Your task to perform on an android device: toggle data saver in the chrome app Image 0: 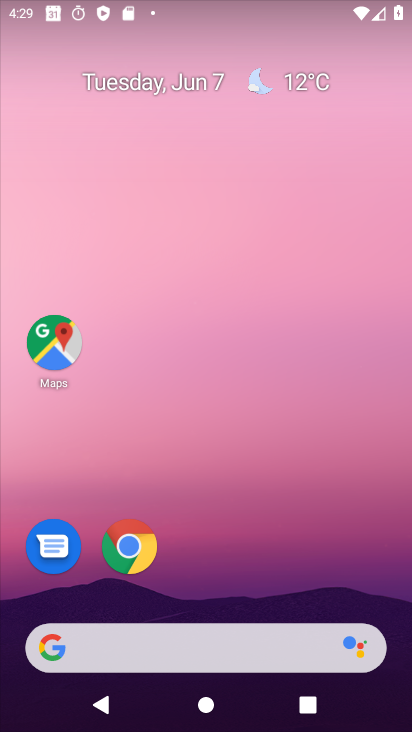
Step 0: click (108, 553)
Your task to perform on an android device: toggle data saver in the chrome app Image 1: 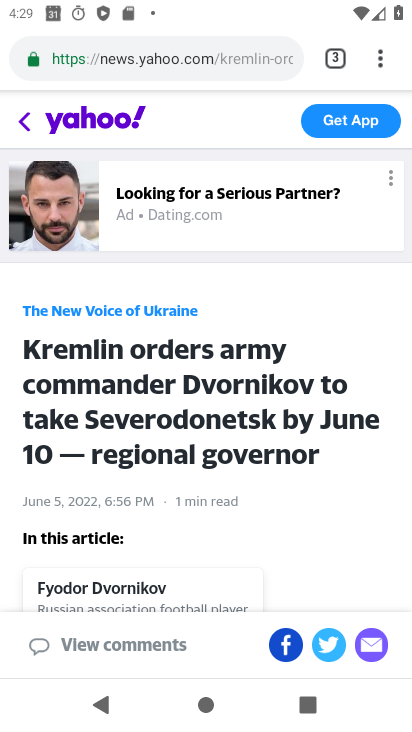
Step 1: click (382, 59)
Your task to perform on an android device: toggle data saver in the chrome app Image 2: 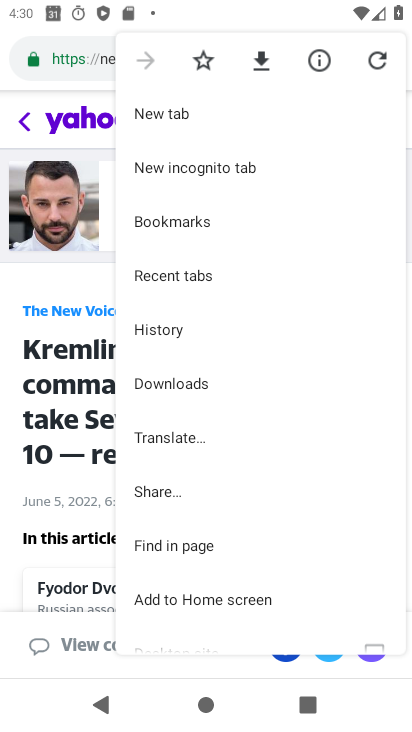
Step 2: drag from (178, 570) to (199, 154)
Your task to perform on an android device: toggle data saver in the chrome app Image 3: 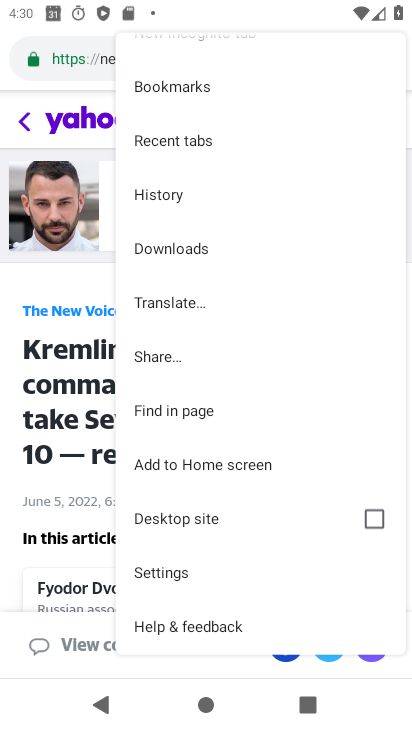
Step 3: click (167, 567)
Your task to perform on an android device: toggle data saver in the chrome app Image 4: 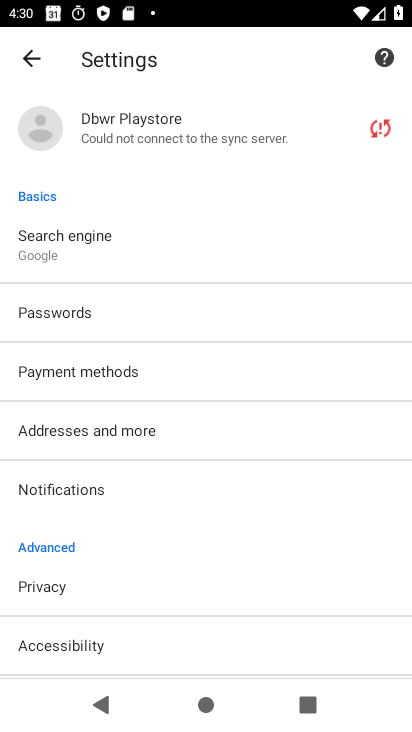
Step 4: drag from (87, 583) to (94, 91)
Your task to perform on an android device: toggle data saver in the chrome app Image 5: 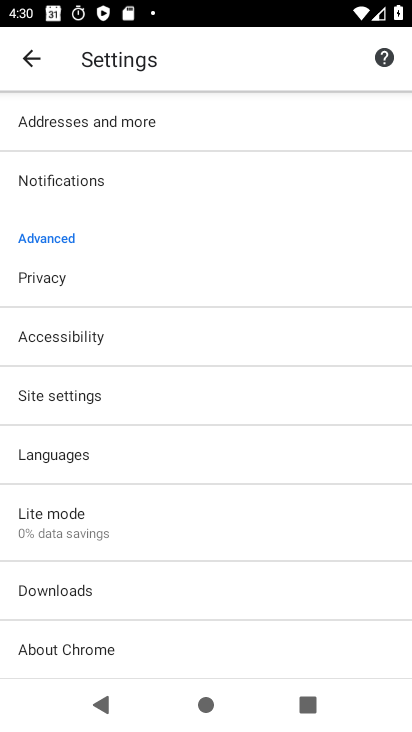
Step 5: click (111, 516)
Your task to perform on an android device: toggle data saver in the chrome app Image 6: 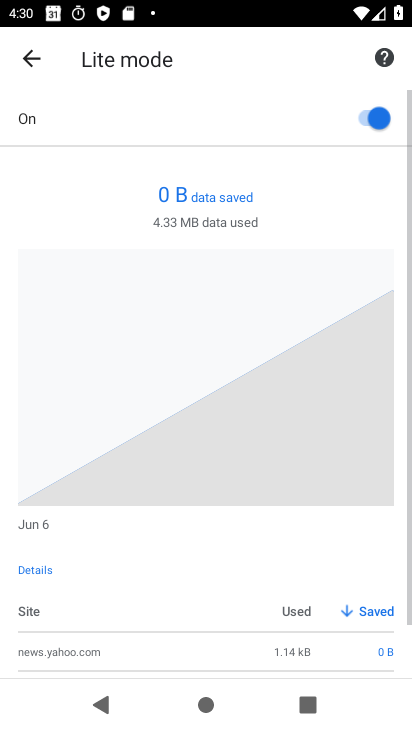
Step 6: click (373, 117)
Your task to perform on an android device: toggle data saver in the chrome app Image 7: 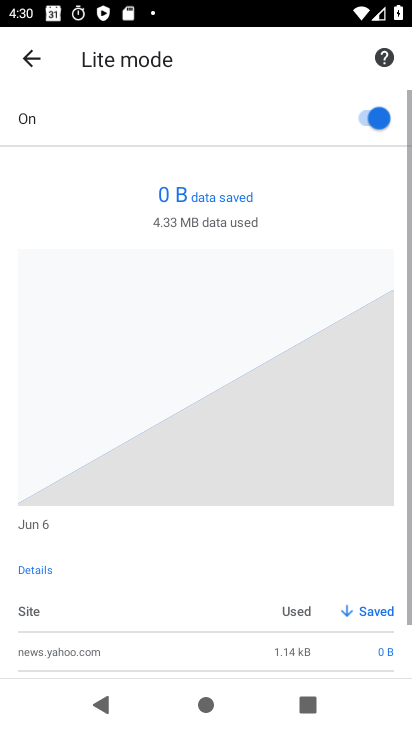
Step 7: click (373, 117)
Your task to perform on an android device: toggle data saver in the chrome app Image 8: 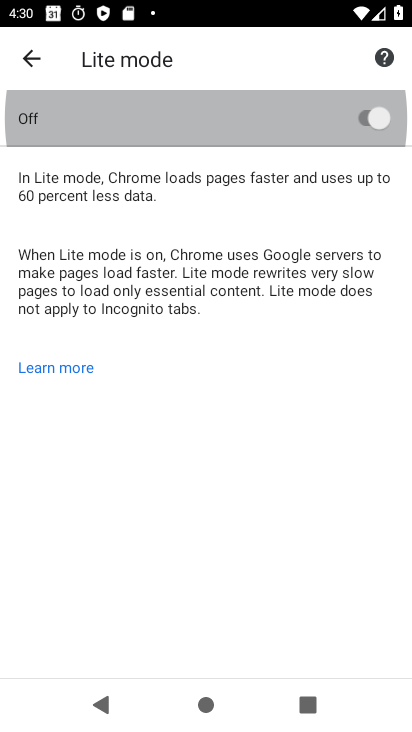
Step 8: click (373, 117)
Your task to perform on an android device: toggle data saver in the chrome app Image 9: 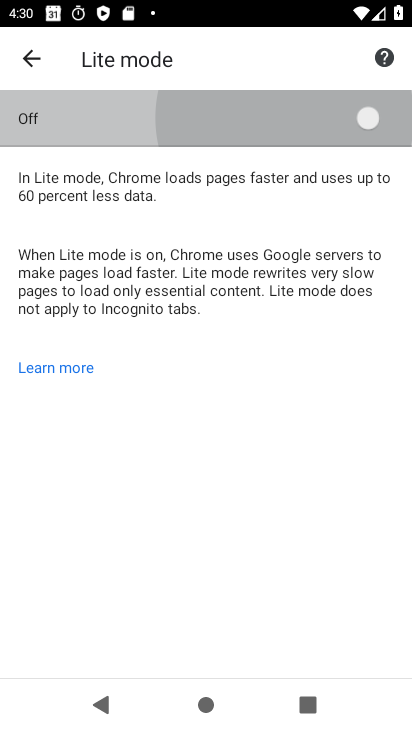
Step 9: click (373, 117)
Your task to perform on an android device: toggle data saver in the chrome app Image 10: 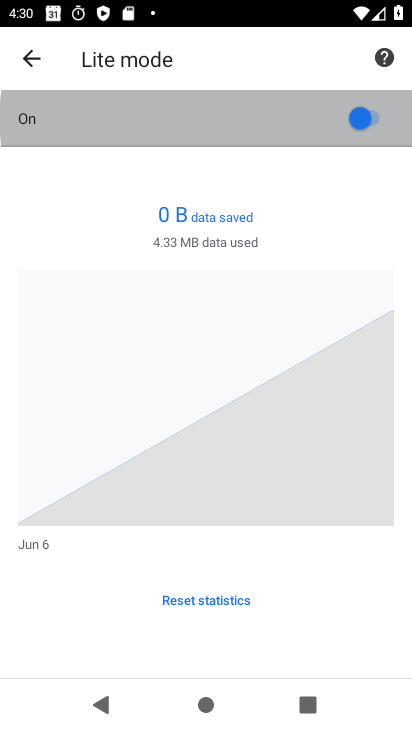
Step 10: click (373, 117)
Your task to perform on an android device: toggle data saver in the chrome app Image 11: 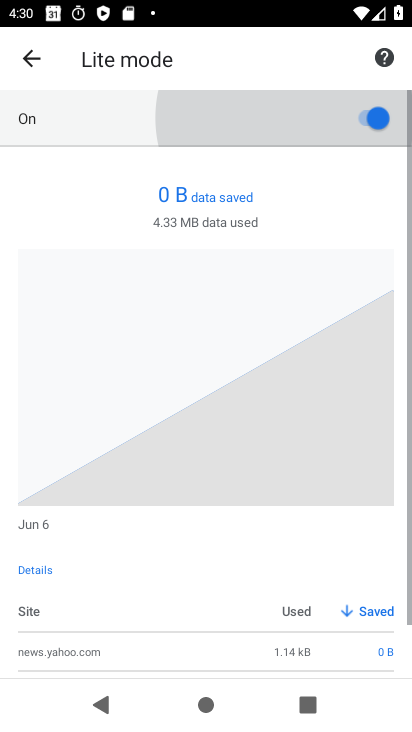
Step 11: click (373, 117)
Your task to perform on an android device: toggle data saver in the chrome app Image 12: 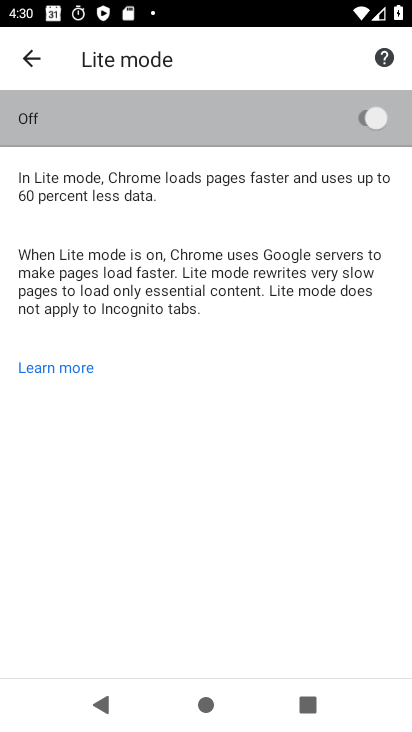
Step 12: click (373, 117)
Your task to perform on an android device: toggle data saver in the chrome app Image 13: 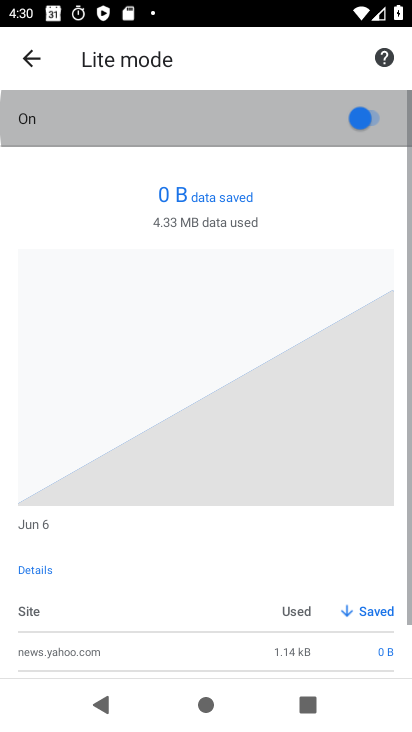
Step 13: click (373, 117)
Your task to perform on an android device: toggle data saver in the chrome app Image 14: 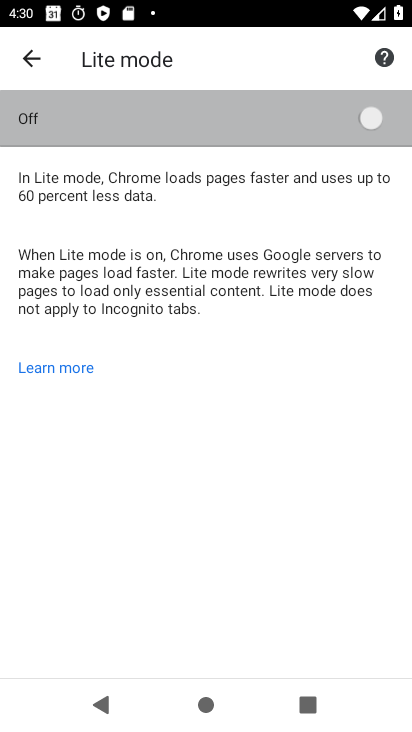
Step 14: click (373, 117)
Your task to perform on an android device: toggle data saver in the chrome app Image 15: 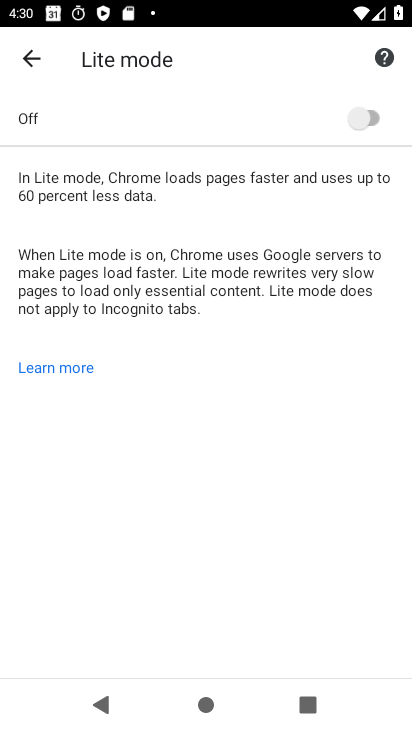
Step 15: task complete